Your task to perform on an android device: turn notification dots on Image 0: 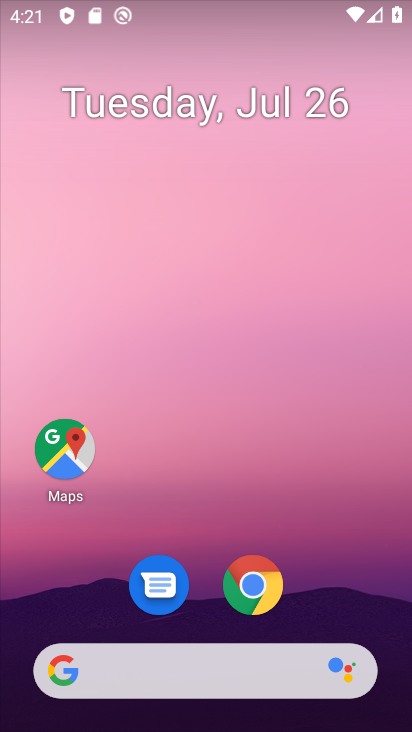
Step 0: drag from (331, 556) to (250, 177)
Your task to perform on an android device: turn notification dots on Image 1: 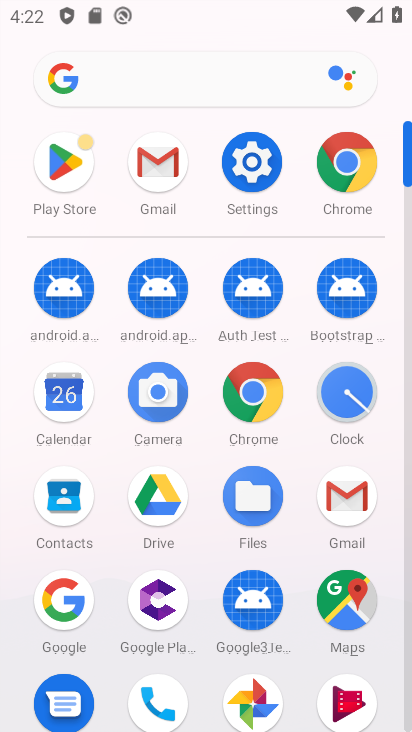
Step 1: click (251, 161)
Your task to perform on an android device: turn notification dots on Image 2: 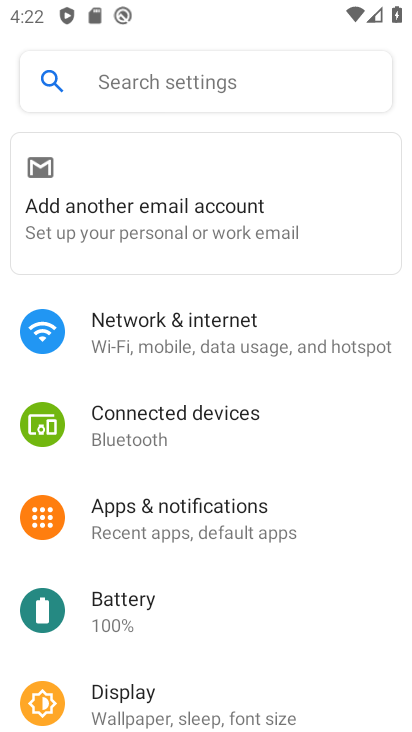
Step 2: click (262, 520)
Your task to perform on an android device: turn notification dots on Image 3: 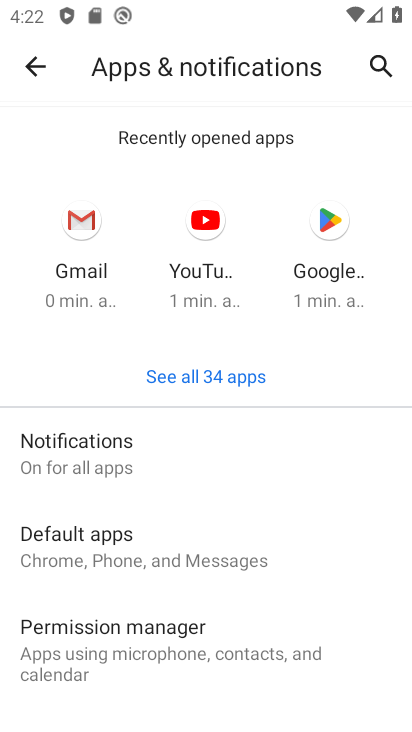
Step 3: click (65, 449)
Your task to perform on an android device: turn notification dots on Image 4: 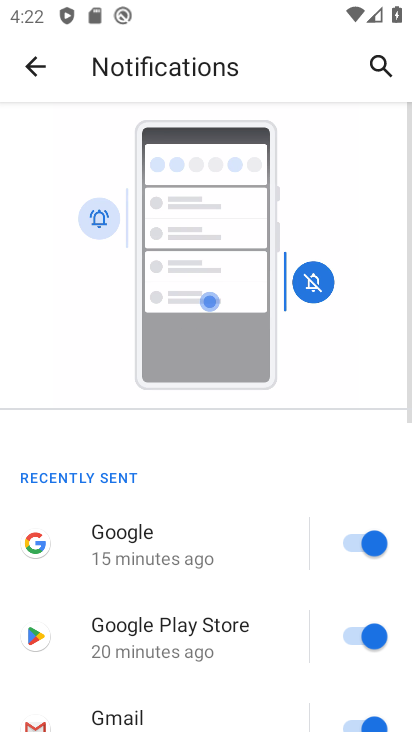
Step 4: drag from (245, 601) to (207, 3)
Your task to perform on an android device: turn notification dots on Image 5: 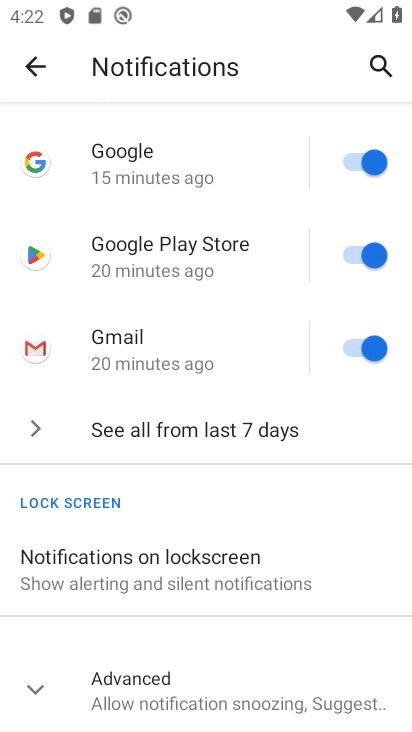
Step 5: click (37, 684)
Your task to perform on an android device: turn notification dots on Image 6: 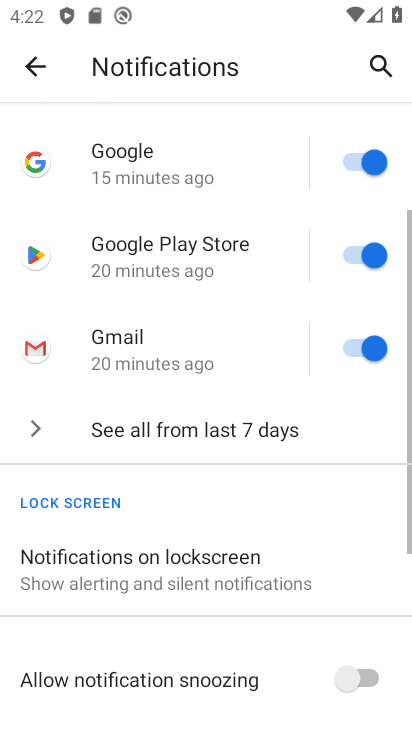
Step 6: task complete